Your task to perform on an android device: check storage Image 0: 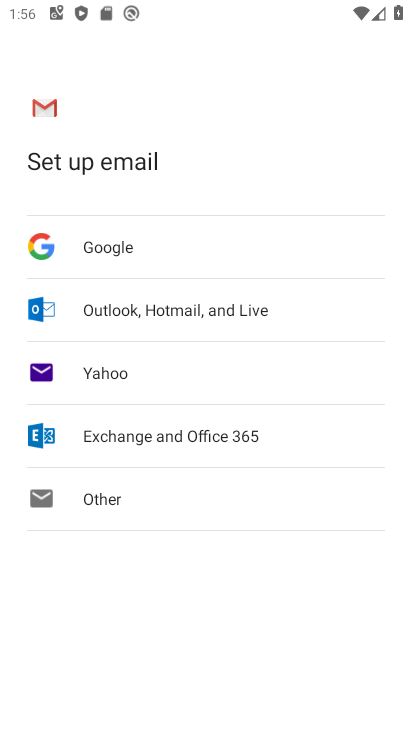
Step 0: press home button
Your task to perform on an android device: check storage Image 1: 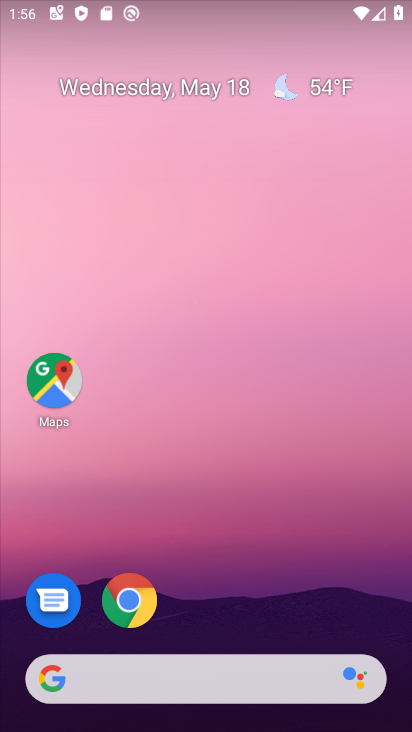
Step 1: drag from (195, 616) to (224, 29)
Your task to perform on an android device: check storage Image 2: 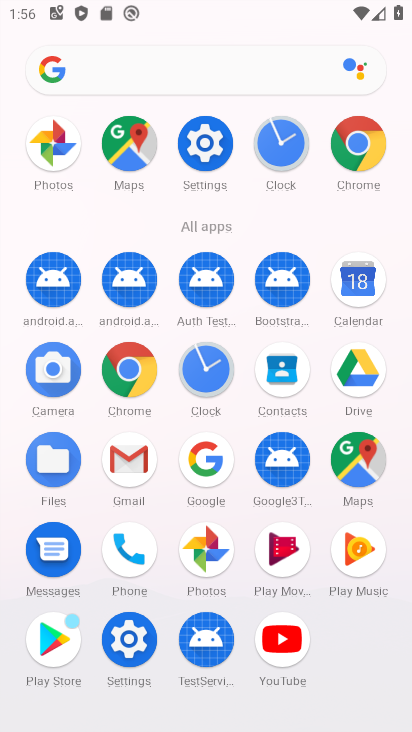
Step 2: click (198, 137)
Your task to perform on an android device: check storage Image 3: 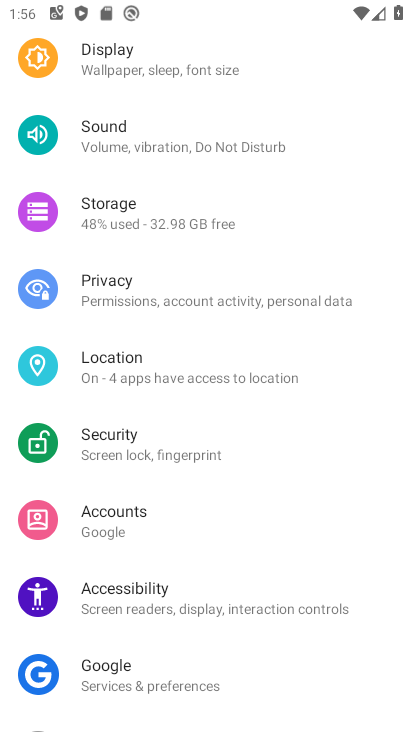
Step 3: click (123, 218)
Your task to perform on an android device: check storage Image 4: 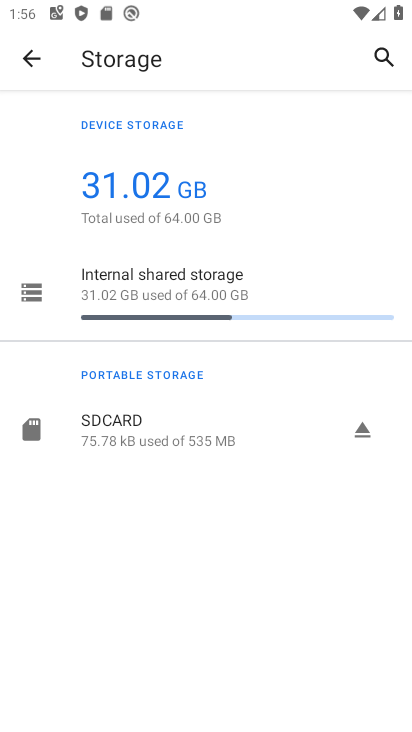
Step 4: task complete